Your task to perform on an android device: open a bookmark in the chrome app Image 0: 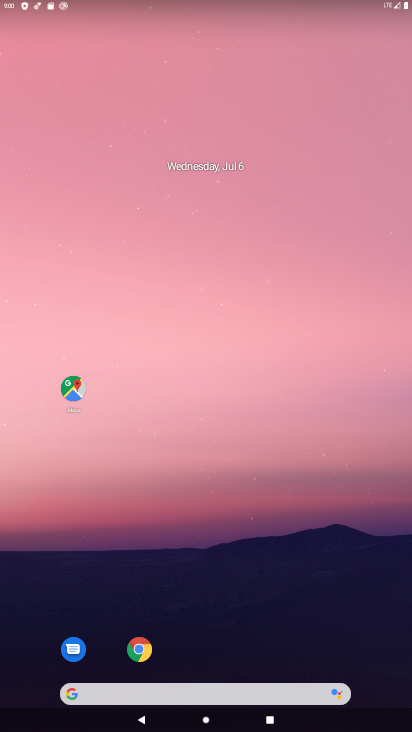
Step 0: click (143, 658)
Your task to perform on an android device: open a bookmark in the chrome app Image 1: 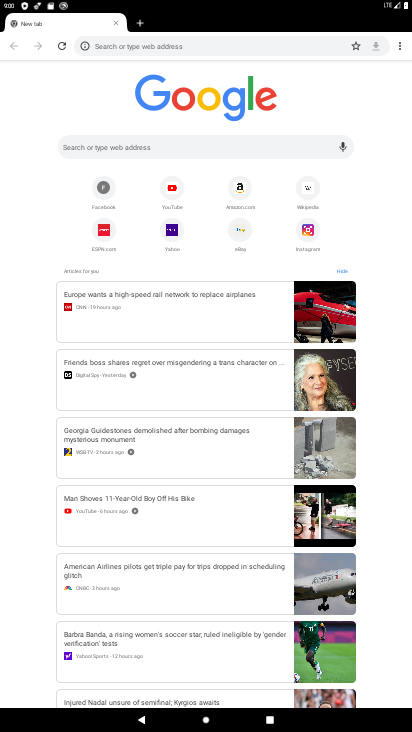
Step 1: click (394, 44)
Your task to perform on an android device: open a bookmark in the chrome app Image 2: 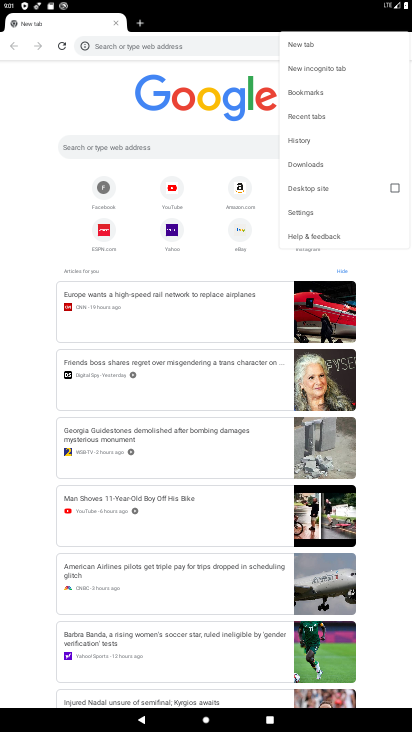
Step 2: click (320, 95)
Your task to perform on an android device: open a bookmark in the chrome app Image 3: 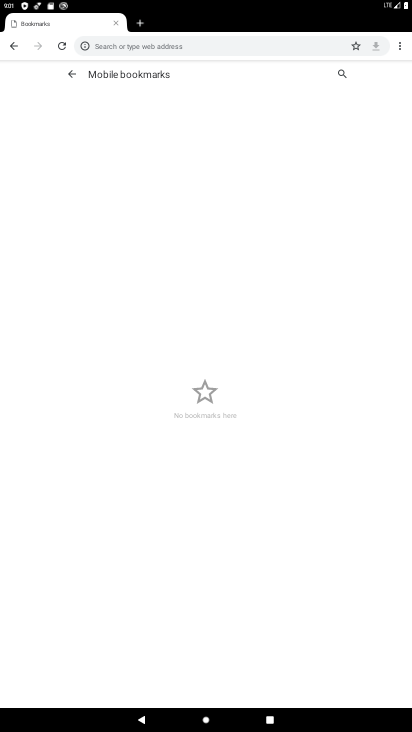
Step 3: task complete